Your task to perform on an android device: Do I have any events this weekend? Image 0: 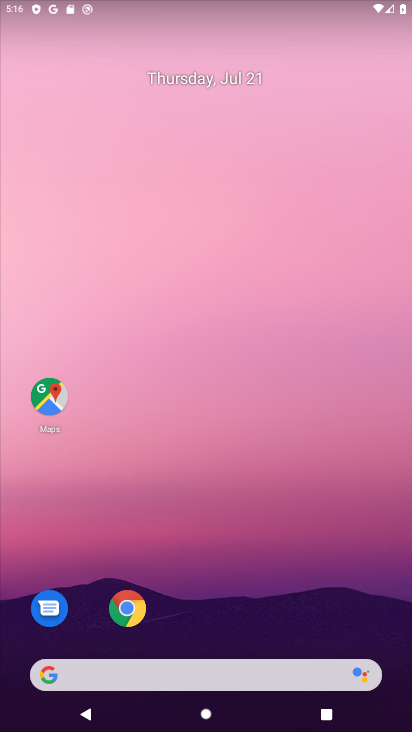
Step 0: drag from (237, 571) to (188, 144)
Your task to perform on an android device: Do I have any events this weekend? Image 1: 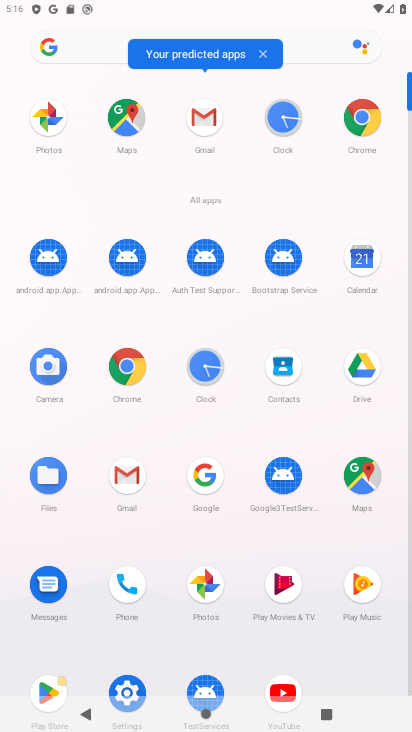
Step 1: click (363, 253)
Your task to perform on an android device: Do I have any events this weekend? Image 2: 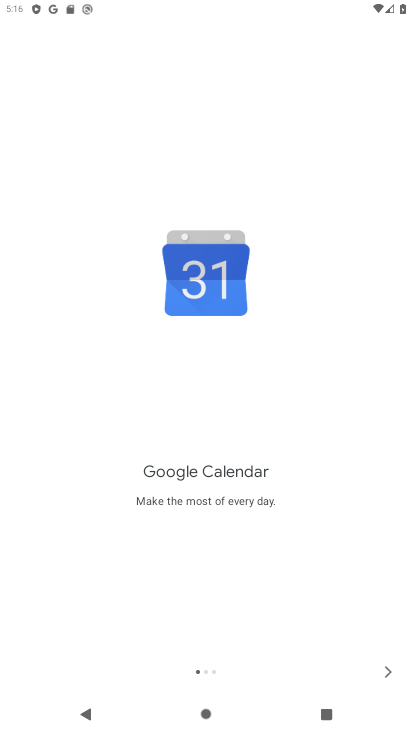
Step 2: click (384, 670)
Your task to perform on an android device: Do I have any events this weekend? Image 3: 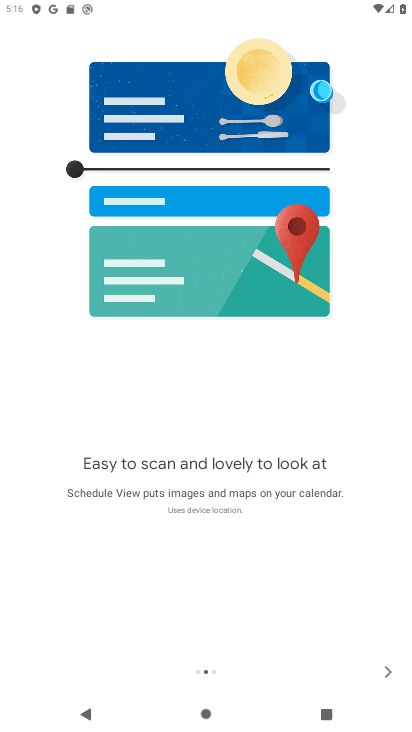
Step 3: click (384, 670)
Your task to perform on an android device: Do I have any events this weekend? Image 4: 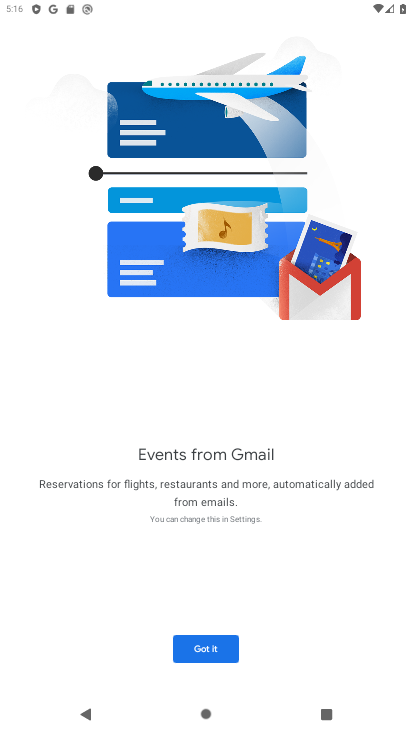
Step 4: click (203, 650)
Your task to perform on an android device: Do I have any events this weekend? Image 5: 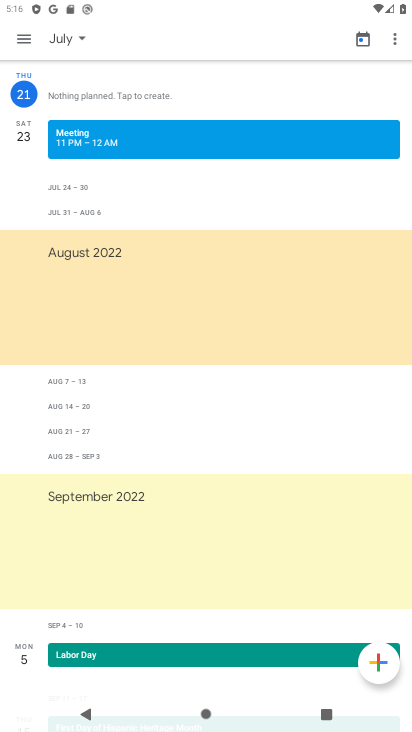
Step 5: click (23, 34)
Your task to perform on an android device: Do I have any events this weekend? Image 6: 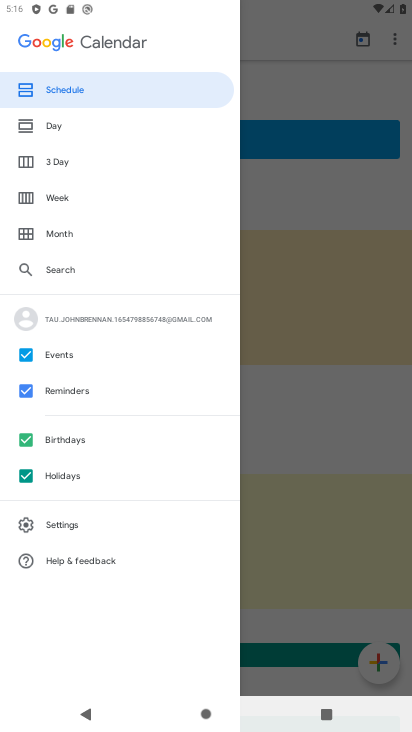
Step 6: click (55, 192)
Your task to perform on an android device: Do I have any events this weekend? Image 7: 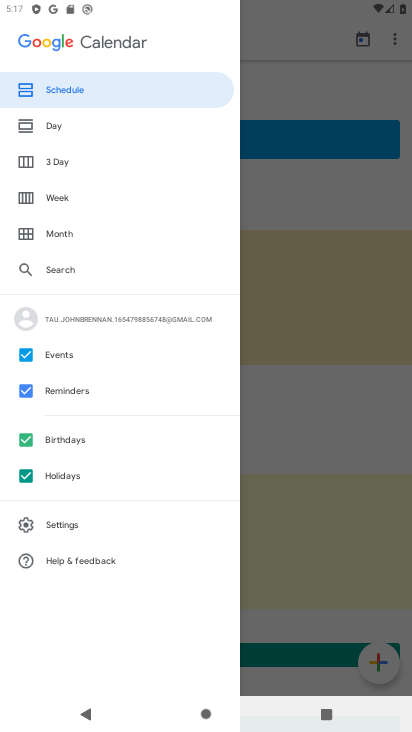
Step 7: click (56, 194)
Your task to perform on an android device: Do I have any events this weekend? Image 8: 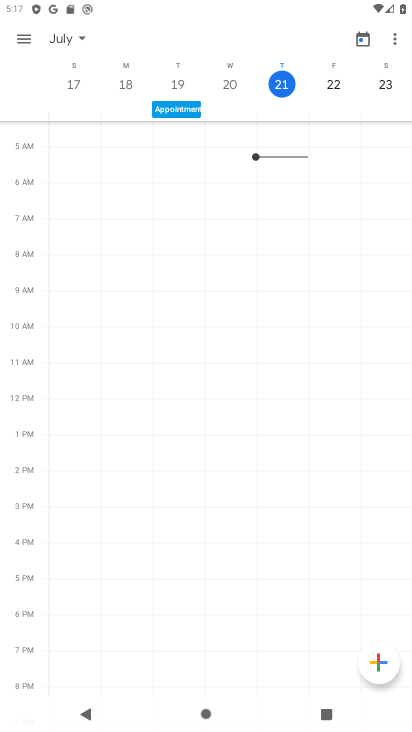
Step 8: task complete